Your task to perform on an android device: remove spam from my inbox in the gmail app Image 0: 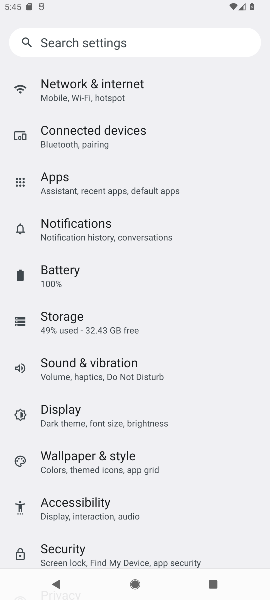
Step 0: press home button
Your task to perform on an android device: remove spam from my inbox in the gmail app Image 1: 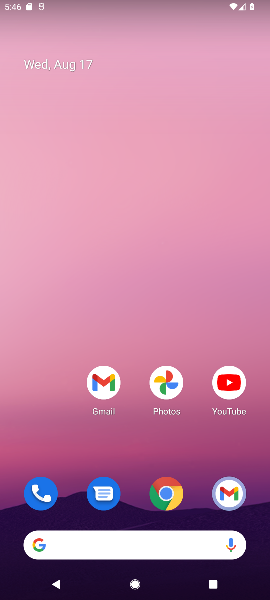
Step 1: click (110, 383)
Your task to perform on an android device: remove spam from my inbox in the gmail app Image 2: 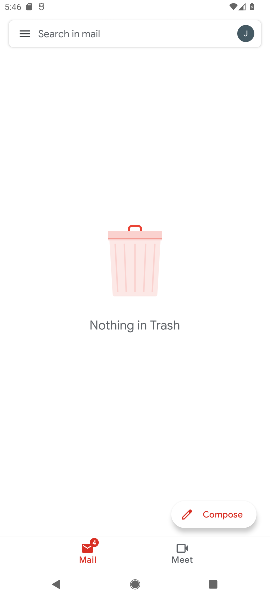
Step 2: click (31, 28)
Your task to perform on an android device: remove spam from my inbox in the gmail app Image 3: 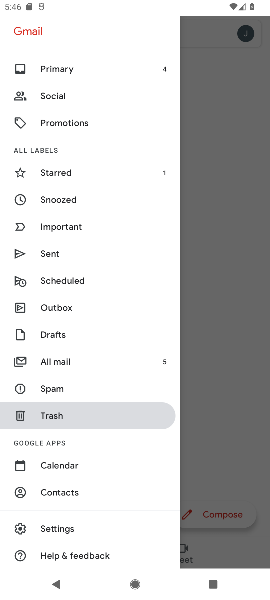
Step 3: click (41, 390)
Your task to perform on an android device: remove spam from my inbox in the gmail app Image 4: 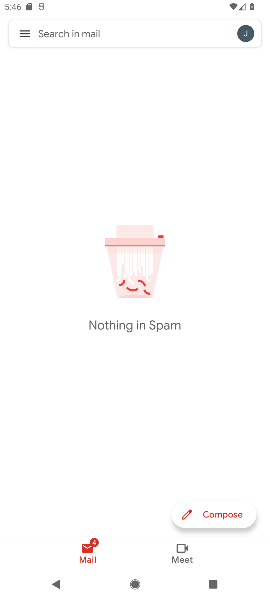
Step 4: task complete